Your task to perform on an android device: open wifi settings Image 0: 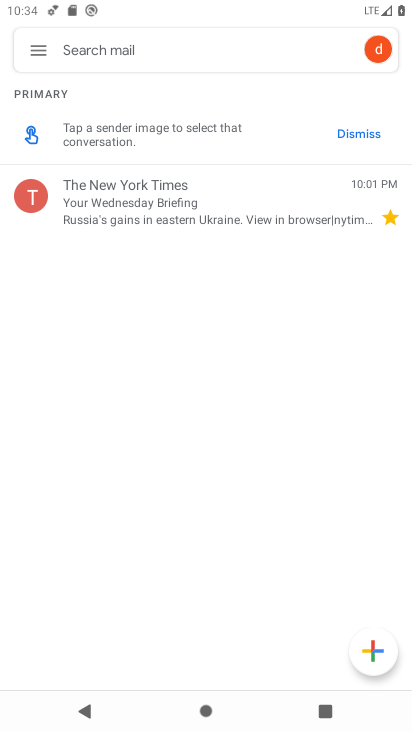
Step 0: press home button
Your task to perform on an android device: open wifi settings Image 1: 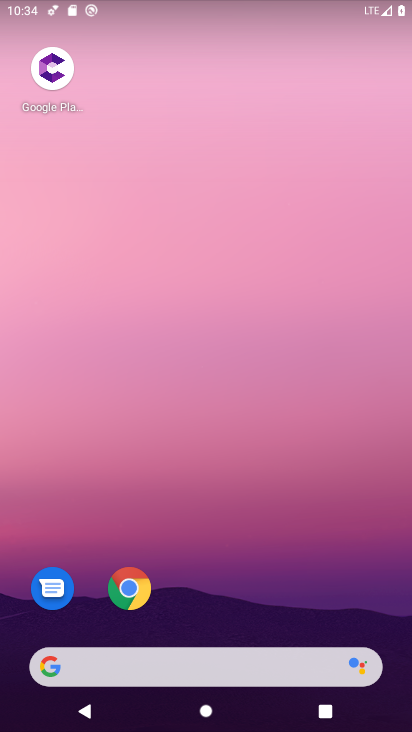
Step 1: drag from (205, 608) to (212, 321)
Your task to perform on an android device: open wifi settings Image 2: 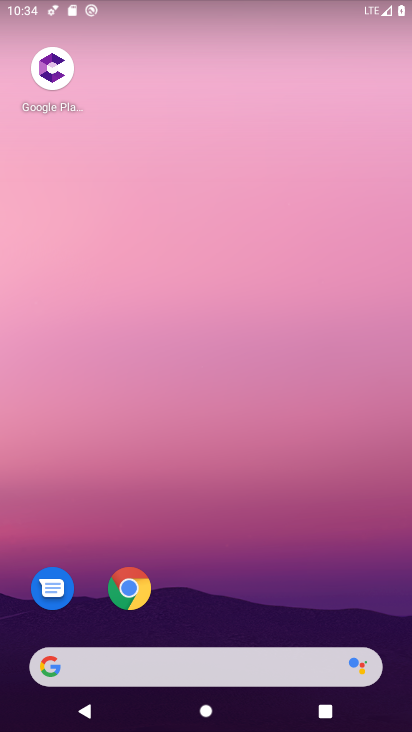
Step 2: drag from (228, 603) to (229, 71)
Your task to perform on an android device: open wifi settings Image 3: 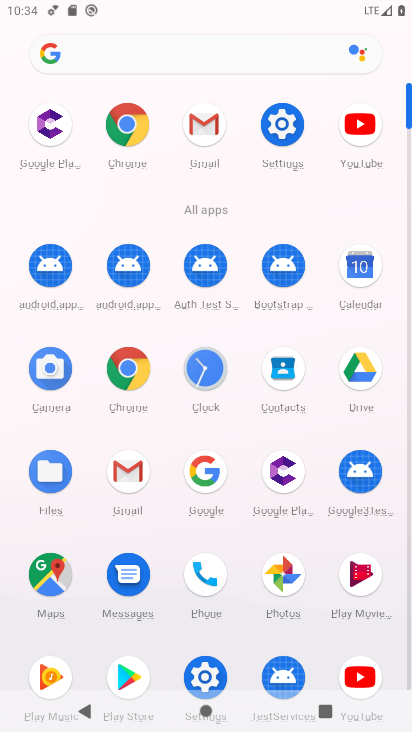
Step 3: click (289, 137)
Your task to perform on an android device: open wifi settings Image 4: 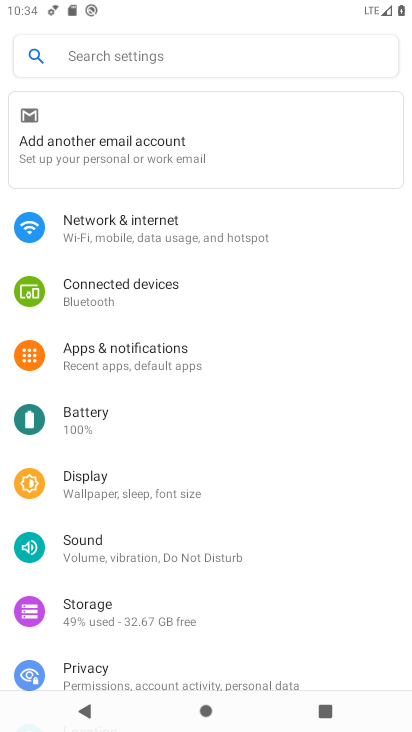
Step 4: click (190, 134)
Your task to perform on an android device: open wifi settings Image 5: 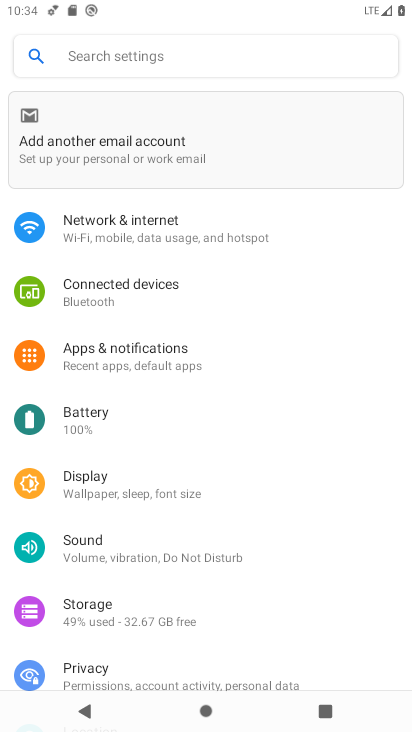
Step 5: click (134, 251)
Your task to perform on an android device: open wifi settings Image 6: 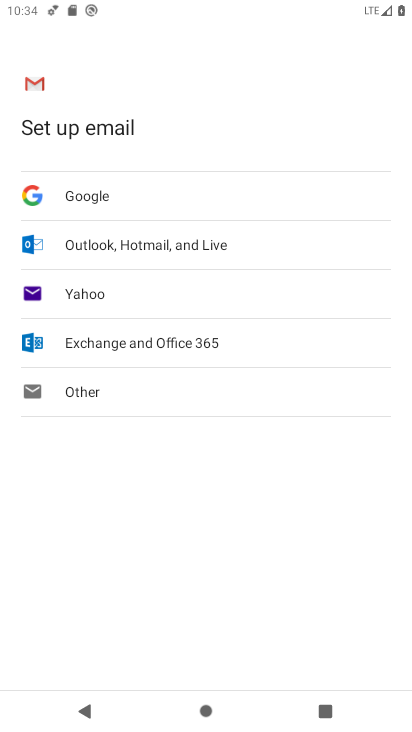
Step 6: press back button
Your task to perform on an android device: open wifi settings Image 7: 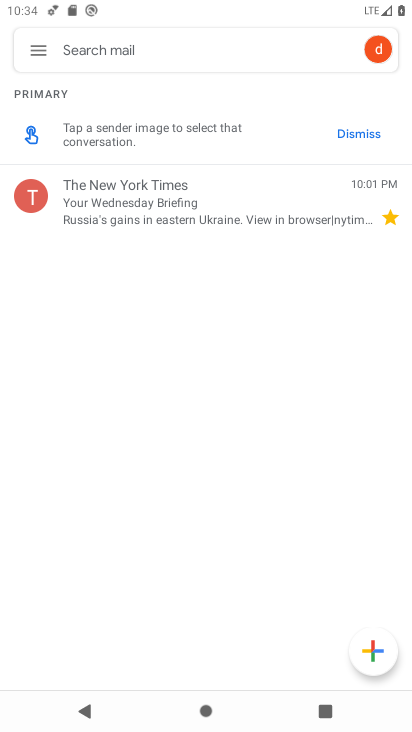
Step 7: press home button
Your task to perform on an android device: open wifi settings Image 8: 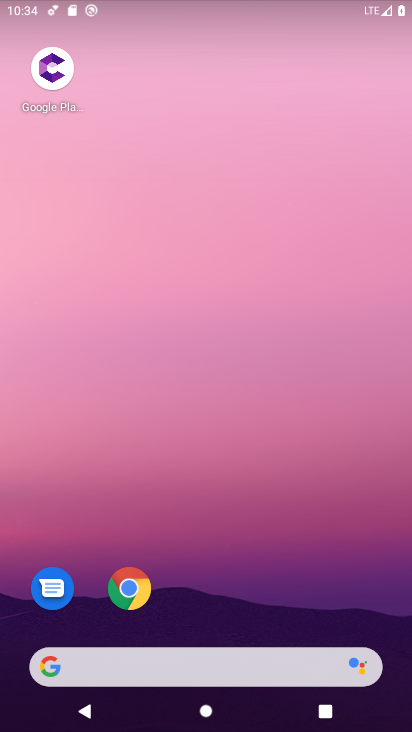
Step 8: drag from (232, 609) to (242, 185)
Your task to perform on an android device: open wifi settings Image 9: 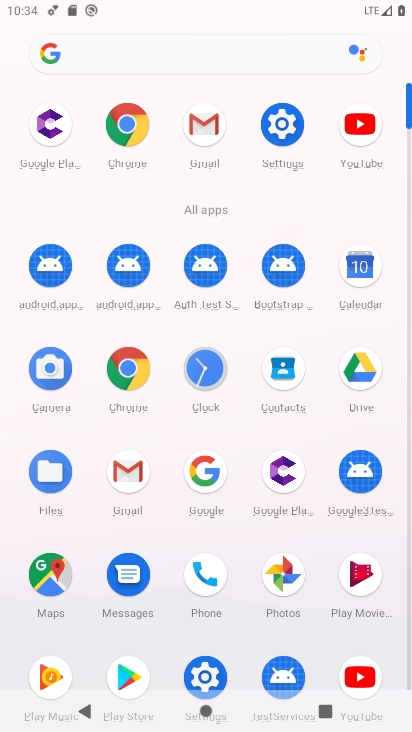
Step 9: click (280, 128)
Your task to perform on an android device: open wifi settings Image 10: 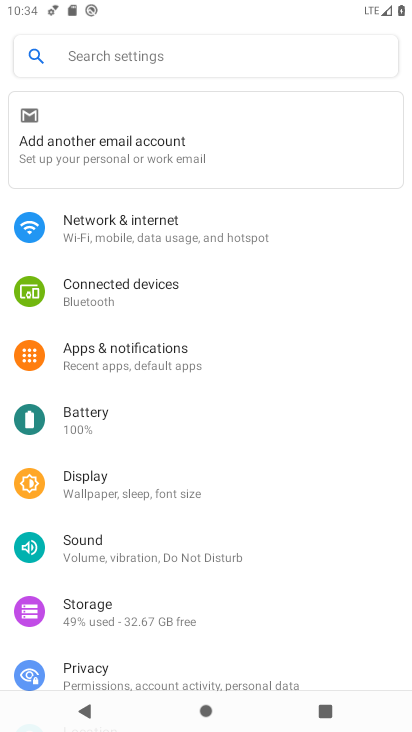
Step 10: click (144, 232)
Your task to perform on an android device: open wifi settings Image 11: 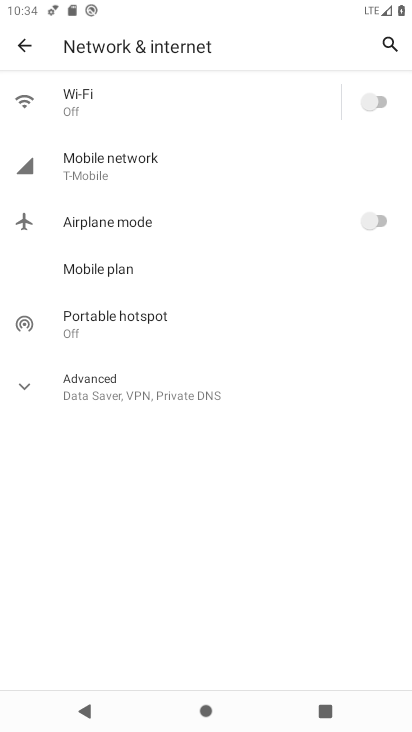
Step 11: click (143, 109)
Your task to perform on an android device: open wifi settings Image 12: 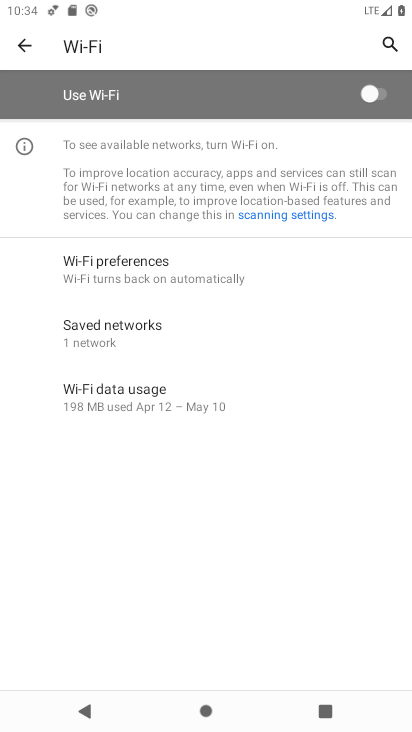
Step 12: task complete